Your task to perform on an android device: Search for Mexican restaurants on Maps Image 0: 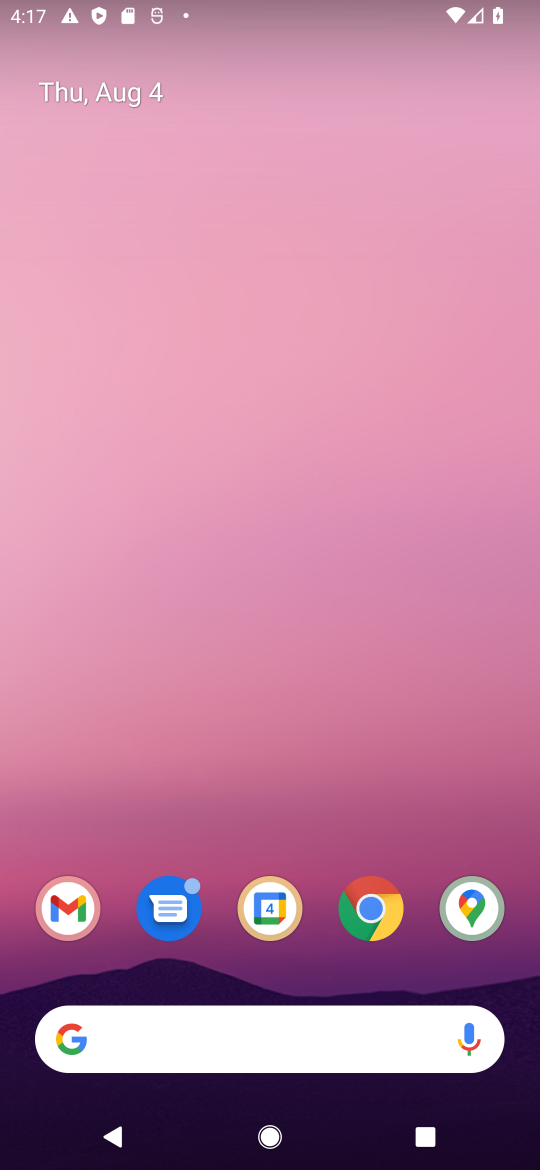
Step 0: drag from (354, 937) to (375, 294)
Your task to perform on an android device: Search for Mexican restaurants on Maps Image 1: 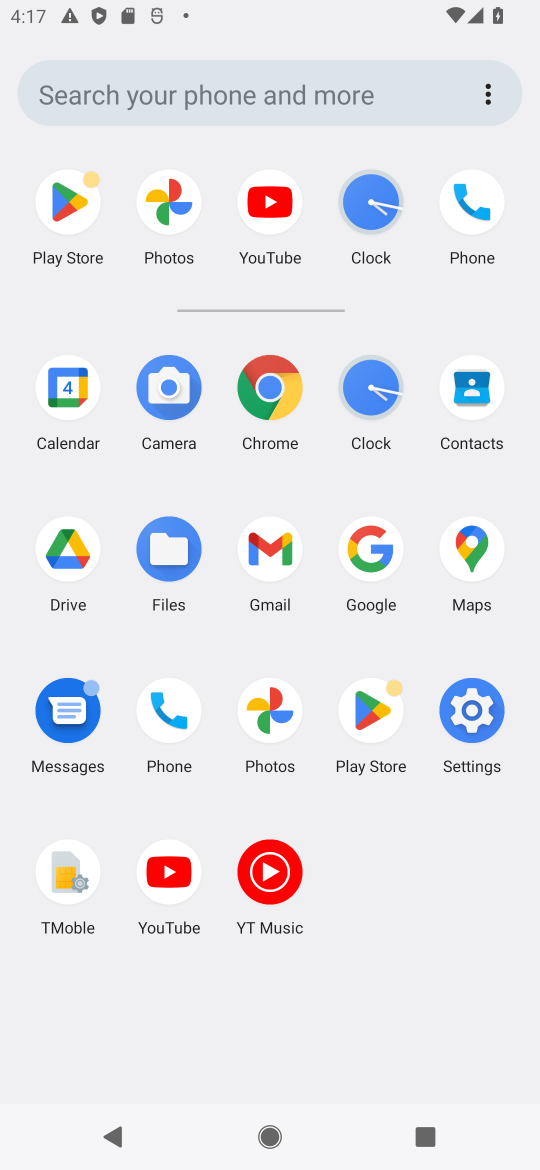
Step 1: click (471, 572)
Your task to perform on an android device: Search for Mexican restaurants on Maps Image 2: 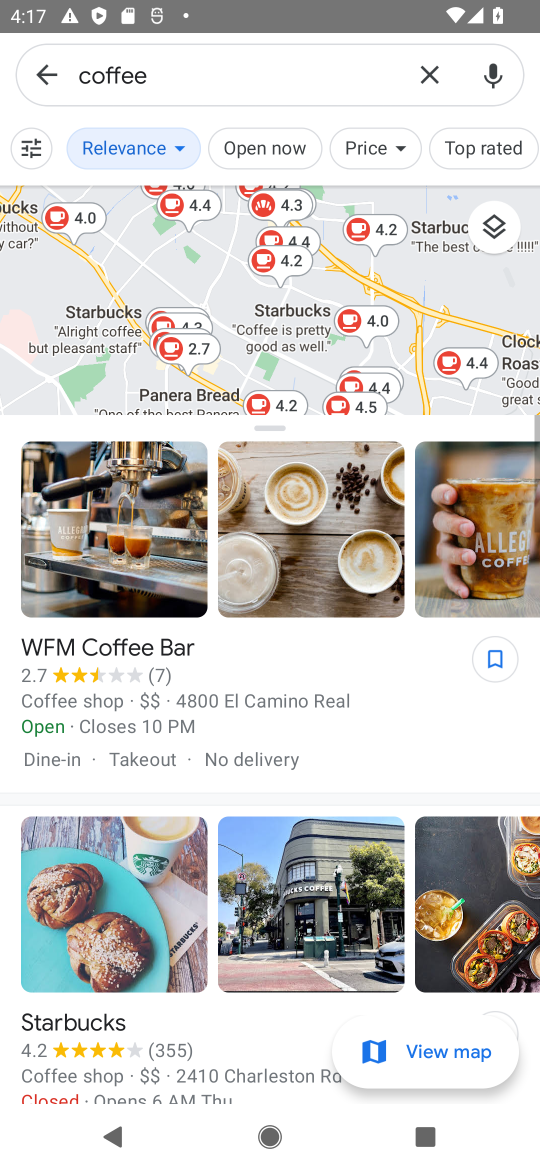
Step 2: click (432, 73)
Your task to perform on an android device: Search for Mexican restaurants on Maps Image 3: 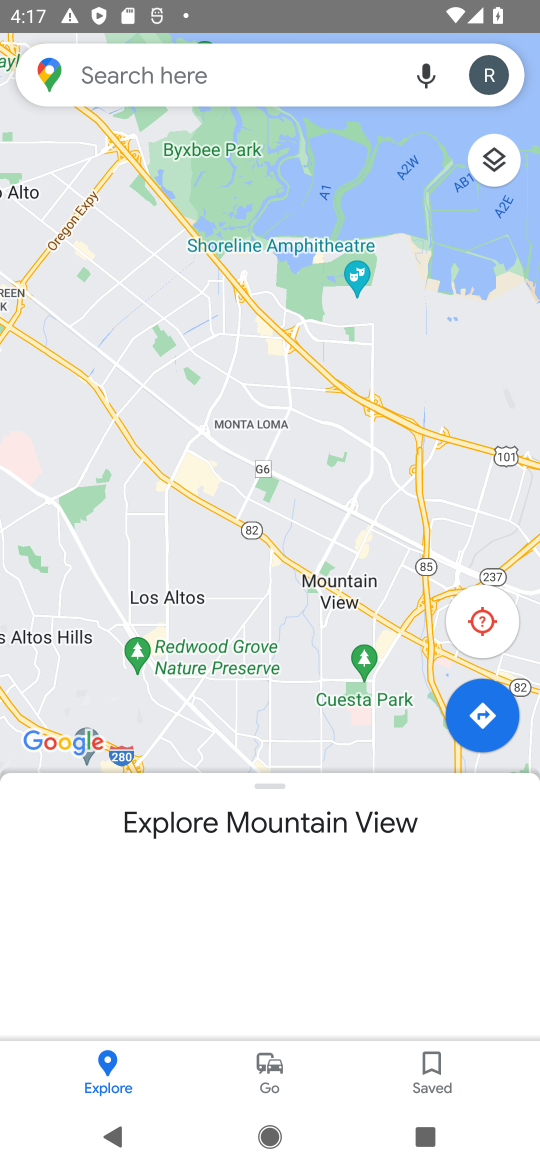
Step 3: click (286, 81)
Your task to perform on an android device: Search for Mexican restaurants on Maps Image 4: 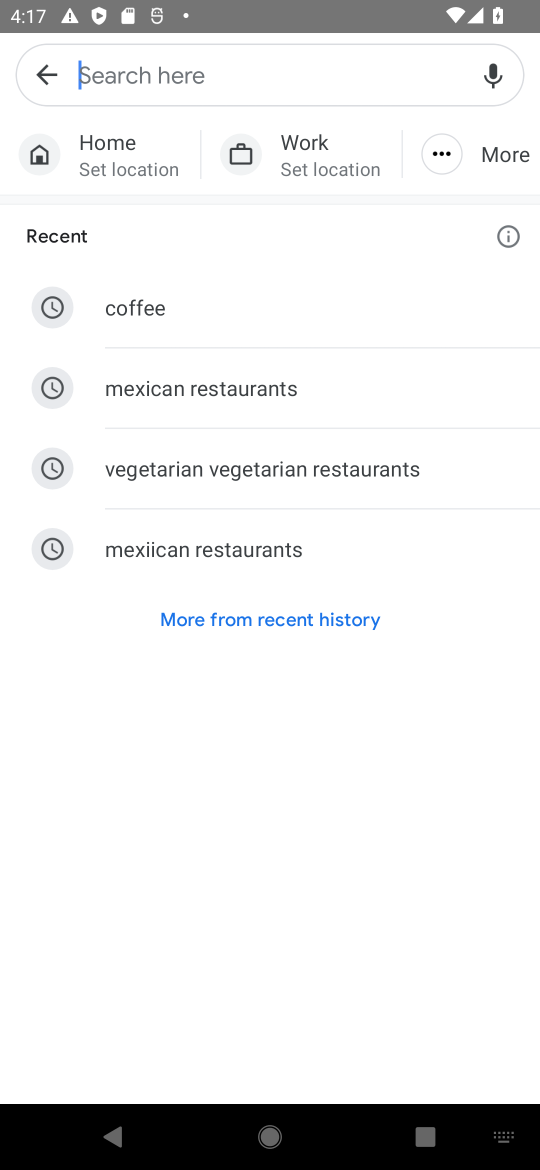
Step 4: click (289, 402)
Your task to perform on an android device: Search for Mexican restaurants on Maps Image 5: 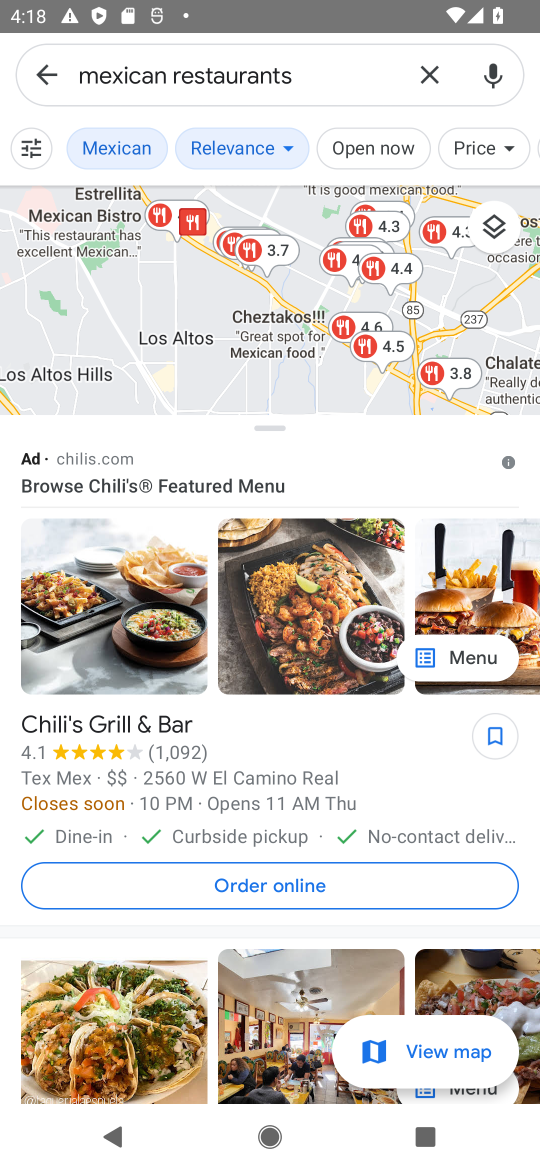
Step 5: task complete